Your task to perform on an android device: Open battery settings Image 0: 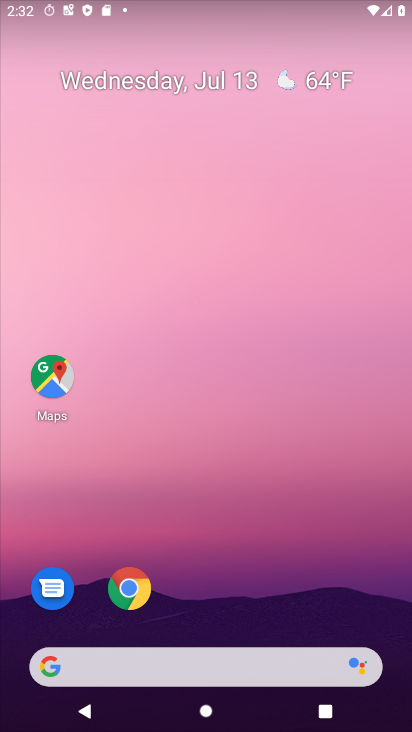
Step 0: drag from (218, 642) to (186, 262)
Your task to perform on an android device: Open battery settings Image 1: 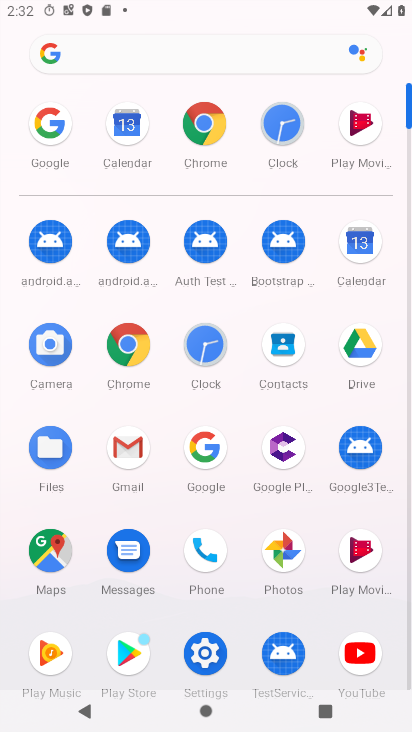
Step 1: click (206, 643)
Your task to perform on an android device: Open battery settings Image 2: 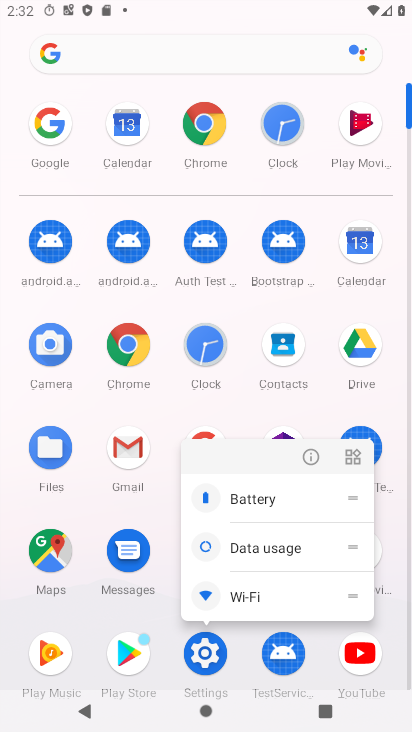
Step 2: click (205, 659)
Your task to perform on an android device: Open battery settings Image 3: 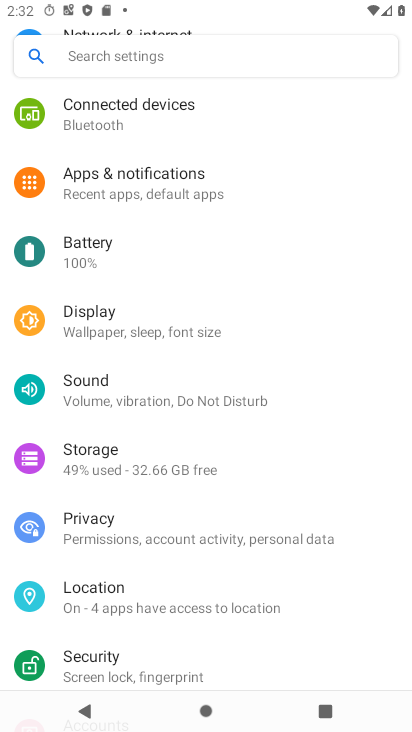
Step 3: click (99, 269)
Your task to perform on an android device: Open battery settings Image 4: 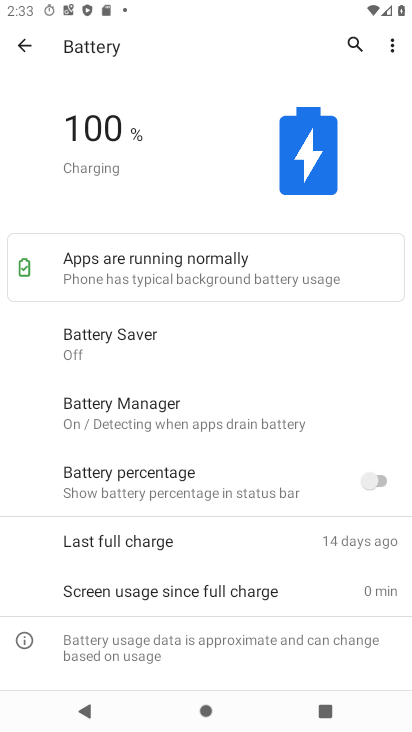
Step 4: task complete